Your task to perform on an android device: What is the recent news? Image 0: 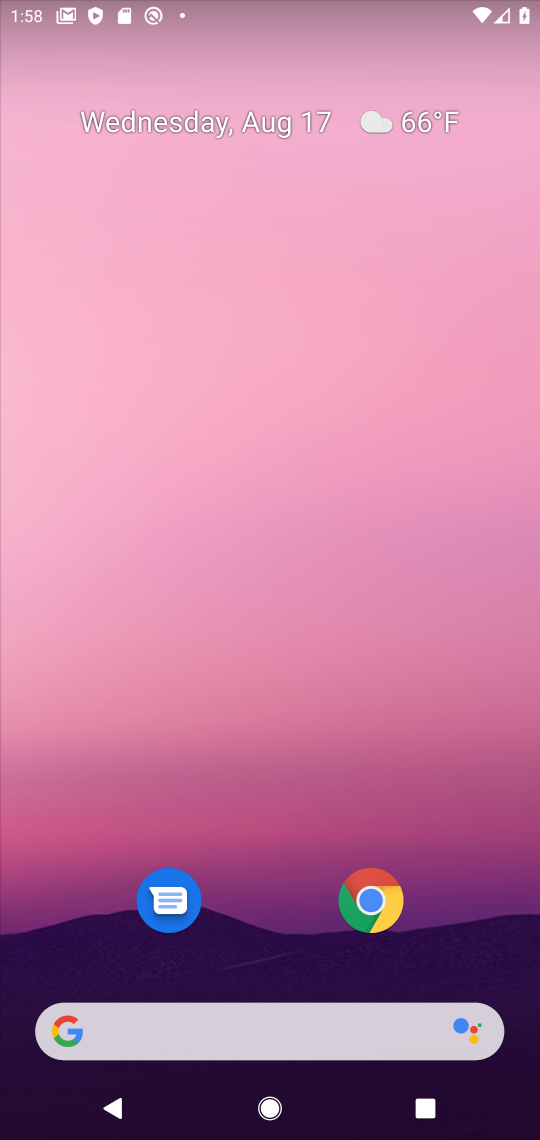
Step 0: click (163, 1009)
Your task to perform on an android device: What is the recent news? Image 1: 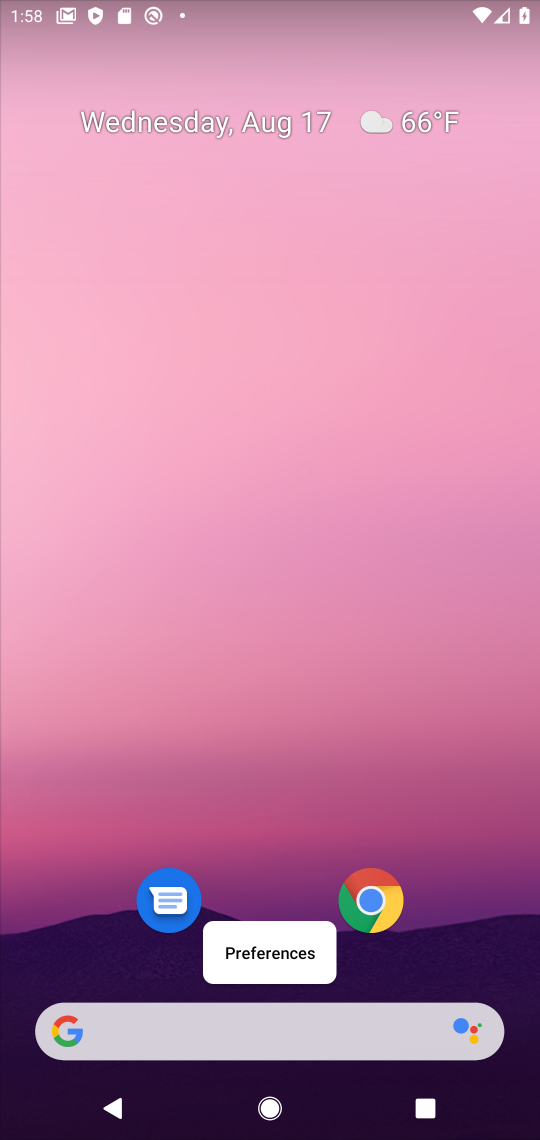
Step 1: click (170, 1028)
Your task to perform on an android device: What is the recent news? Image 2: 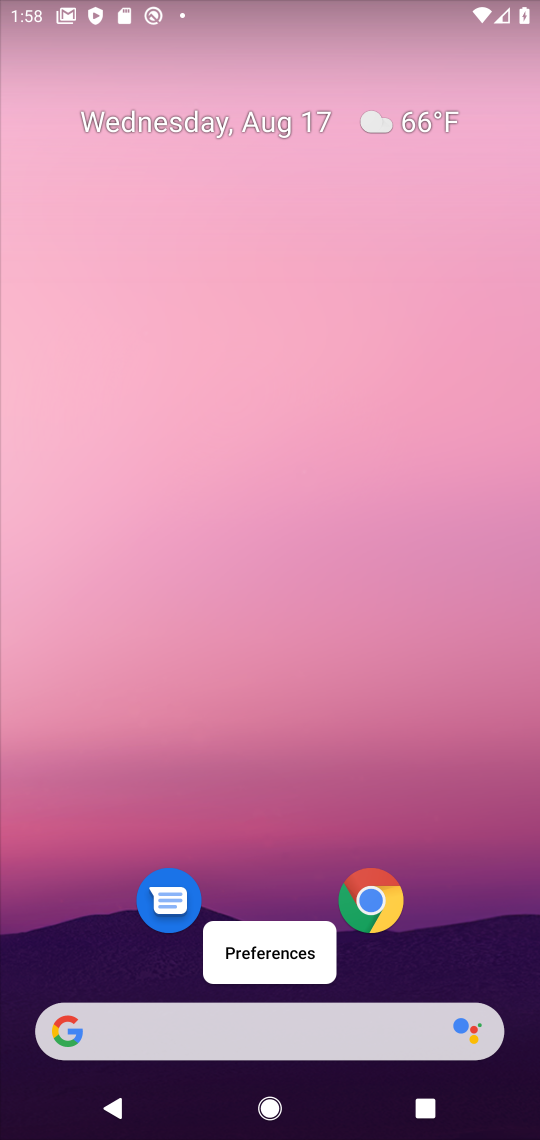
Step 2: click (170, 1029)
Your task to perform on an android device: What is the recent news? Image 3: 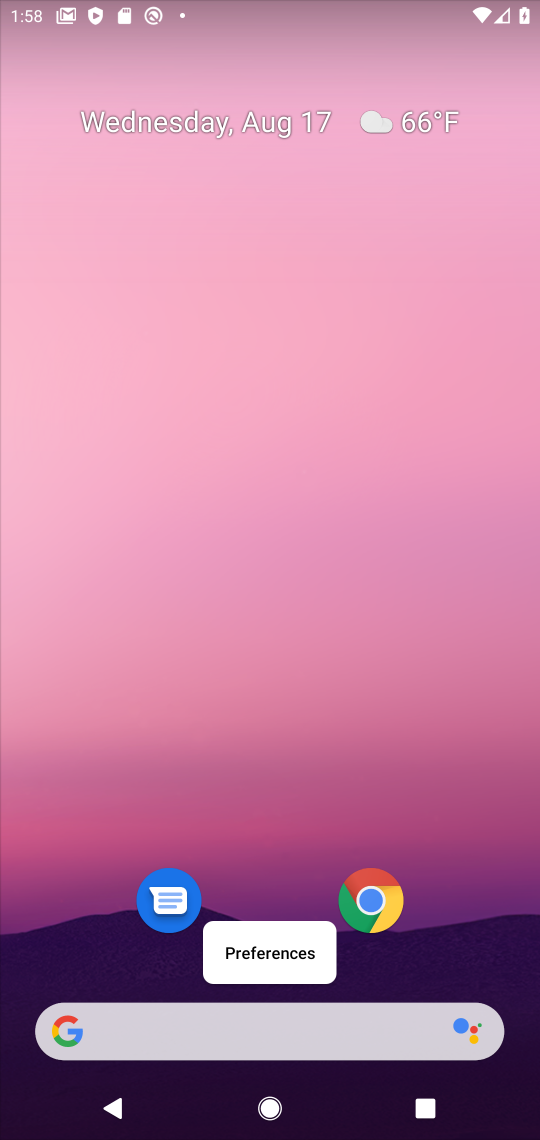
Step 3: click (170, 1032)
Your task to perform on an android device: What is the recent news? Image 4: 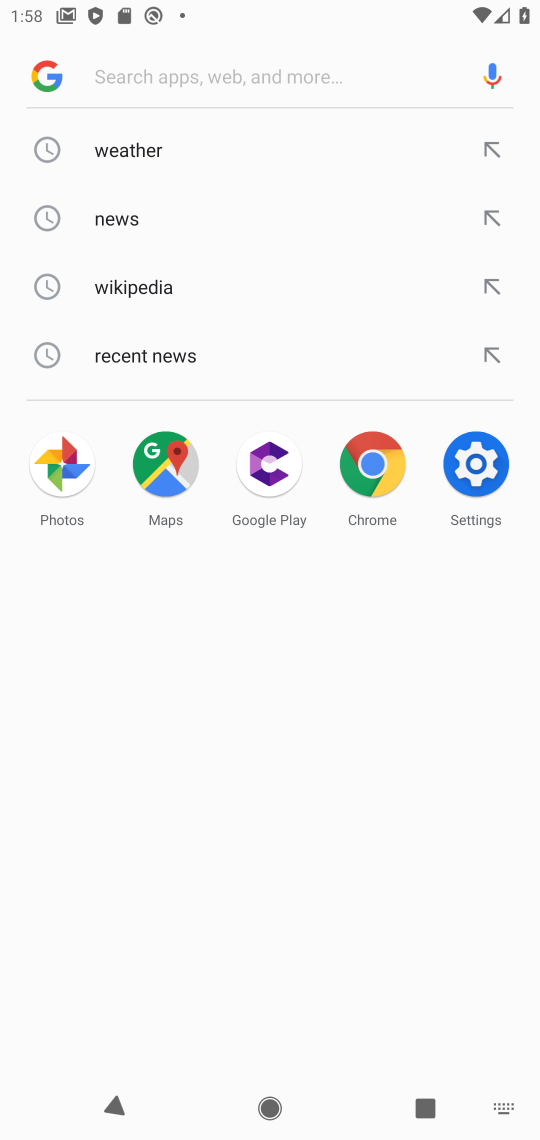
Step 4: click (170, 1032)
Your task to perform on an android device: What is the recent news? Image 5: 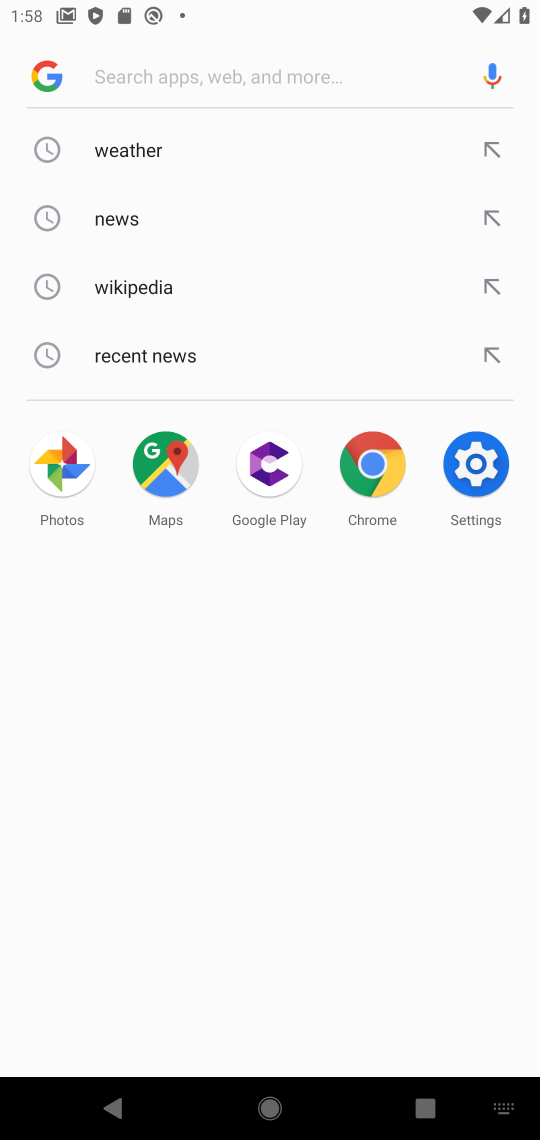
Step 5: click (149, 356)
Your task to perform on an android device: What is the recent news? Image 6: 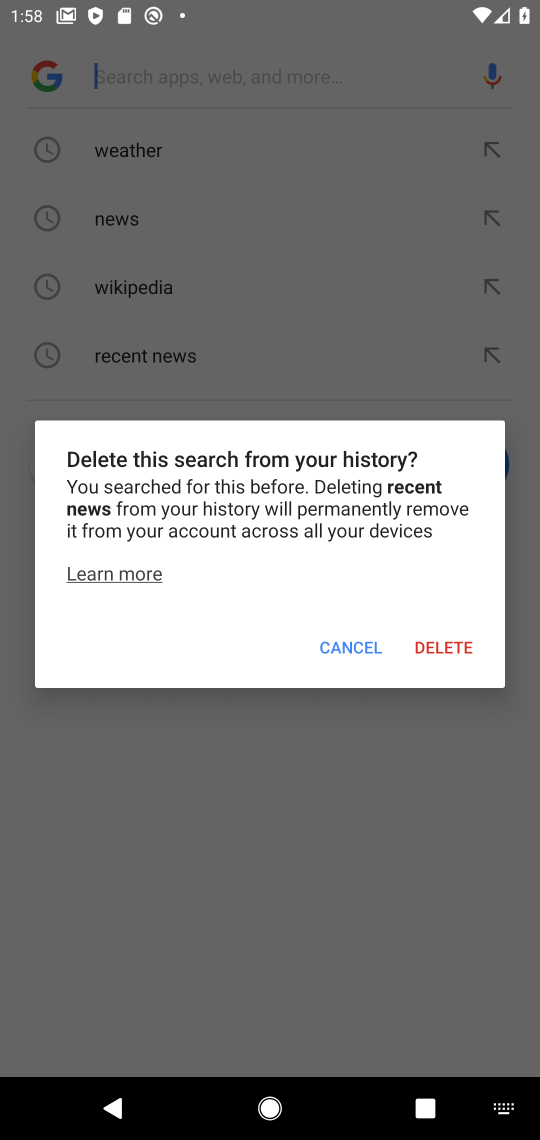
Step 6: click (372, 646)
Your task to perform on an android device: What is the recent news? Image 7: 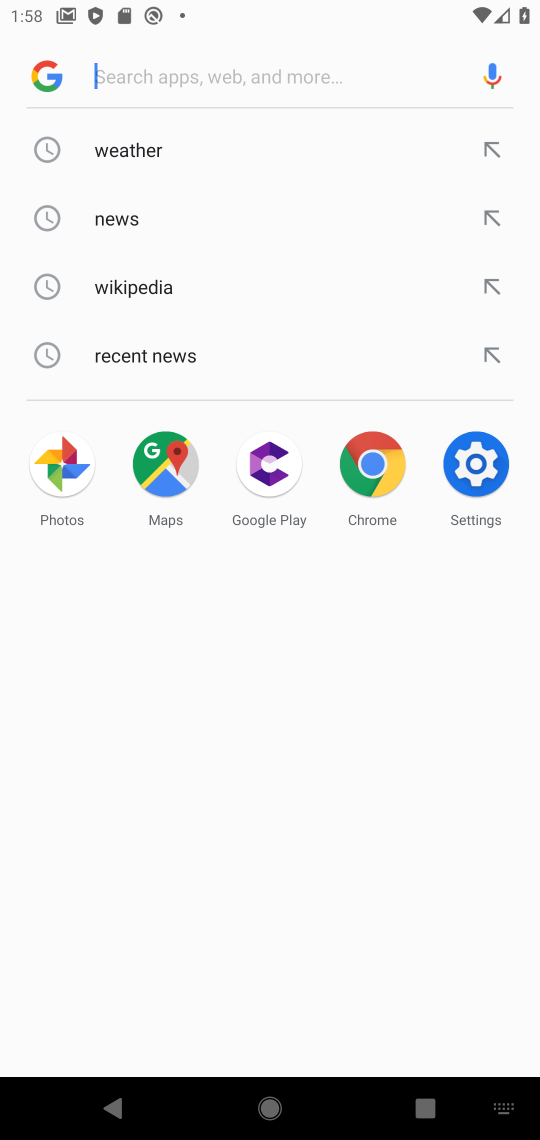
Step 7: click (100, 354)
Your task to perform on an android device: What is the recent news? Image 8: 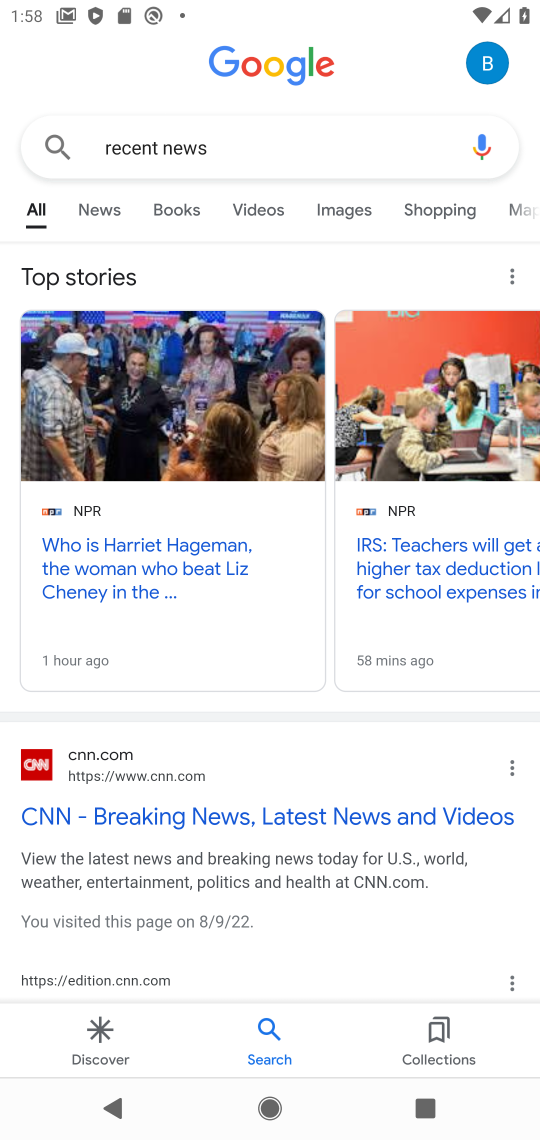
Step 8: click (108, 199)
Your task to perform on an android device: What is the recent news? Image 9: 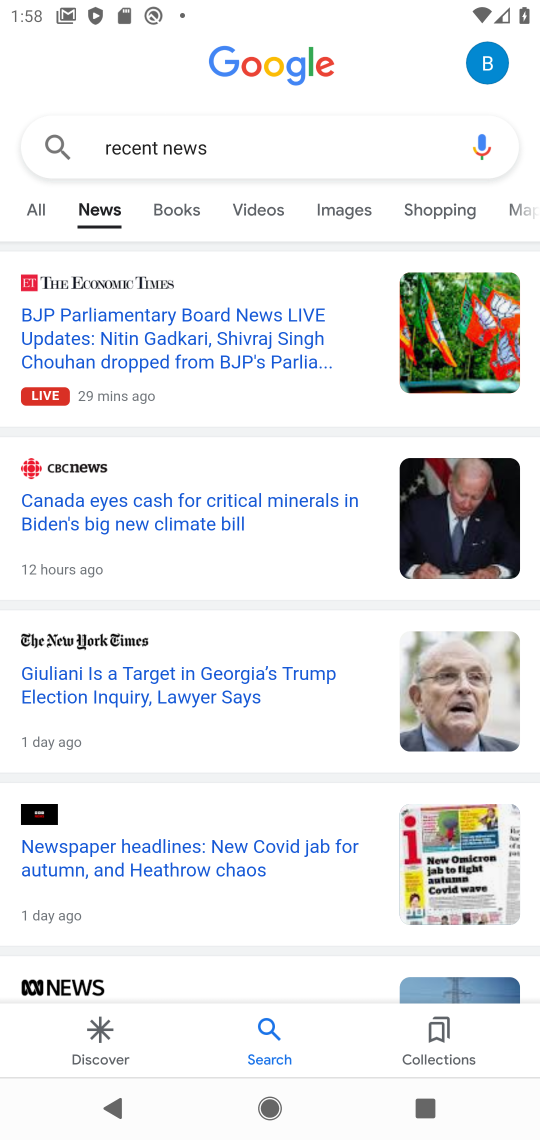
Step 9: task complete